Your task to perform on an android device: Open Android settings Image 0: 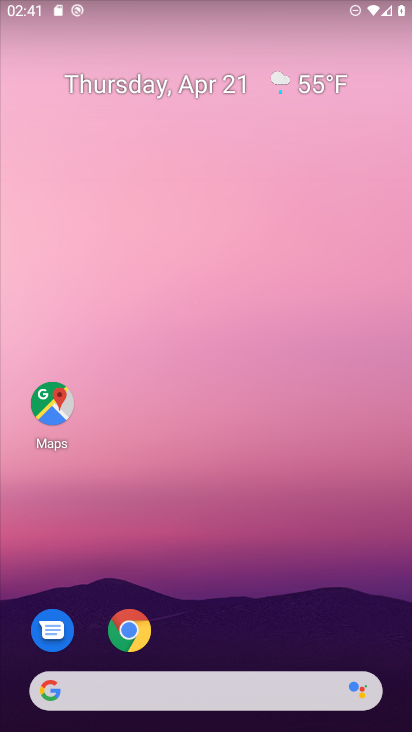
Step 0: drag from (269, 609) to (237, 168)
Your task to perform on an android device: Open Android settings Image 1: 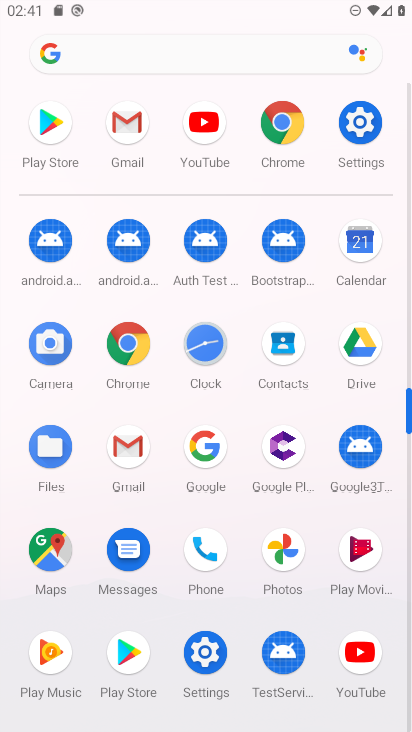
Step 1: click (367, 146)
Your task to perform on an android device: Open Android settings Image 2: 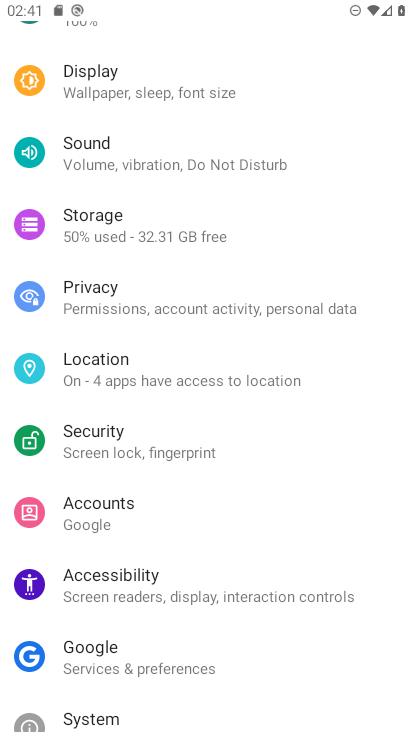
Step 2: drag from (234, 602) to (279, 189)
Your task to perform on an android device: Open Android settings Image 3: 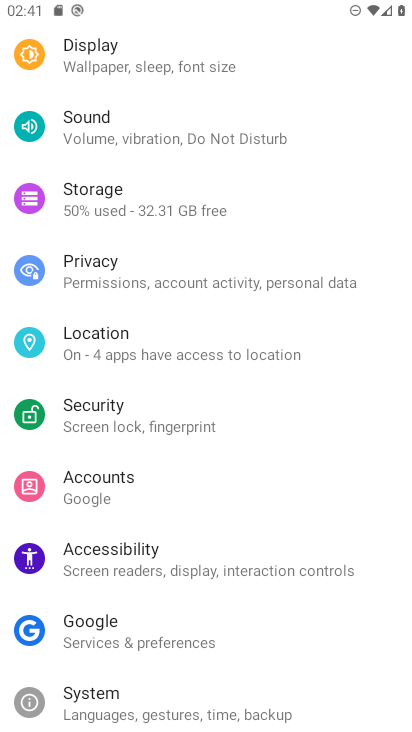
Step 3: drag from (188, 636) to (229, 401)
Your task to perform on an android device: Open Android settings Image 4: 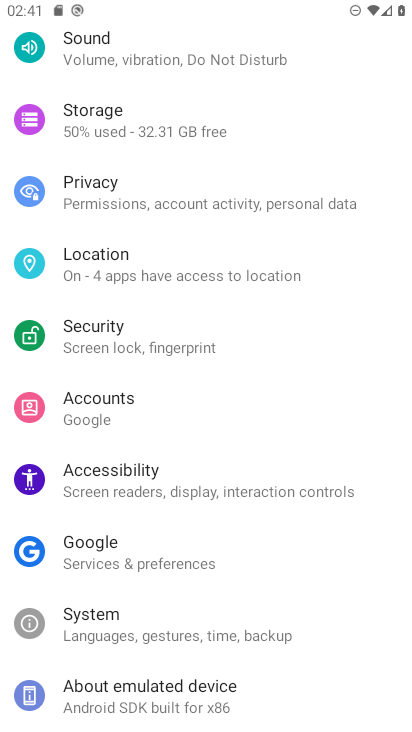
Step 4: click (205, 669)
Your task to perform on an android device: Open Android settings Image 5: 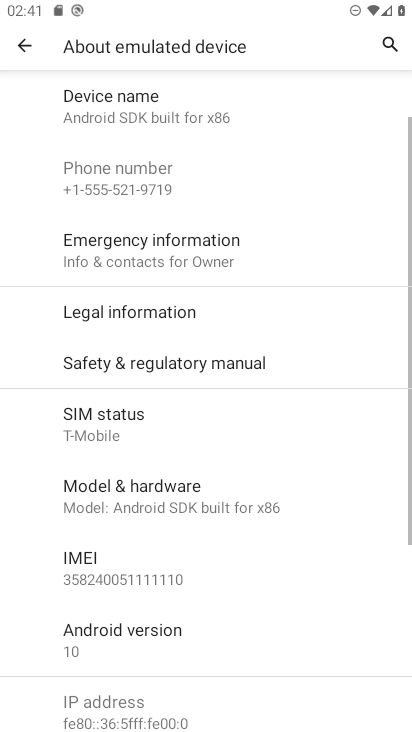
Step 5: task complete